Your task to perform on an android device: turn on sleep mode Image 0: 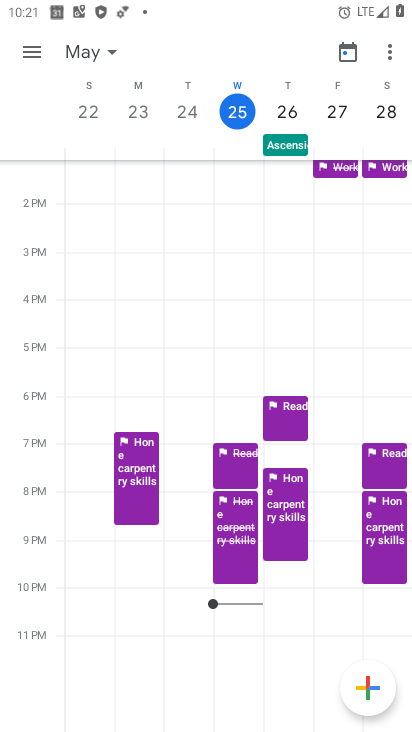
Step 0: task complete